Your task to perform on an android device: turn off javascript in the chrome app Image 0: 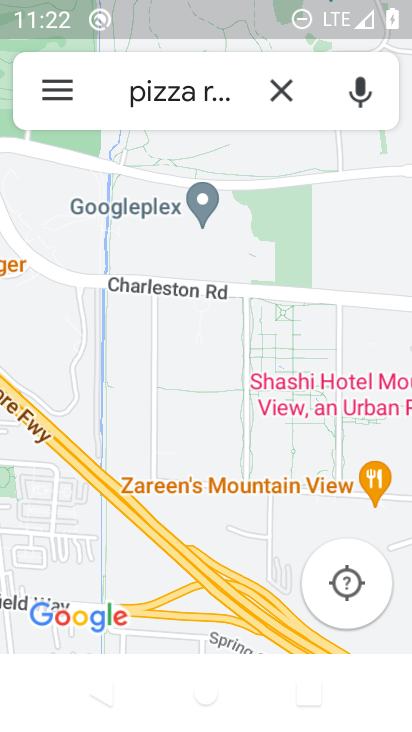
Step 0: drag from (187, 625) to (295, 252)
Your task to perform on an android device: turn off javascript in the chrome app Image 1: 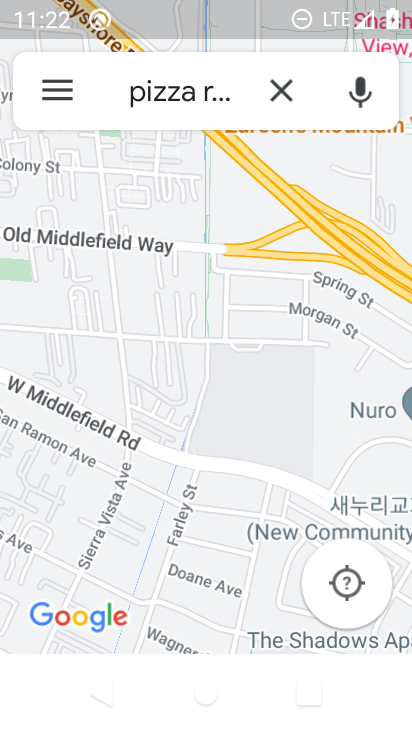
Step 1: drag from (214, 498) to (287, 206)
Your task to perform on an android device: turn off javascript in the chrome app Image 2: 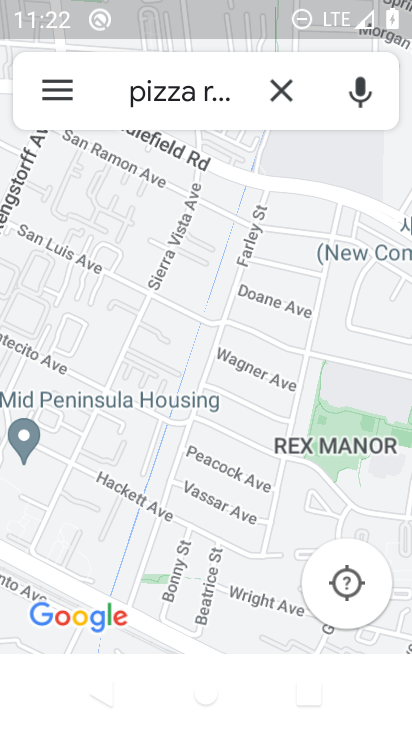
Step 2: press home button
Your task to perform on an android device: turn off javascript in the chrome app Image 3: 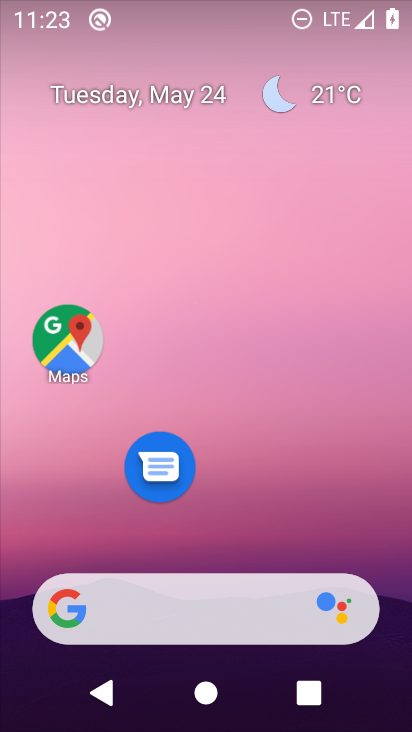
Step 3: drag from (197, 528) to (239, 223)
Your task to perform on an android device: turn off javascript in the chrome app Image 4: 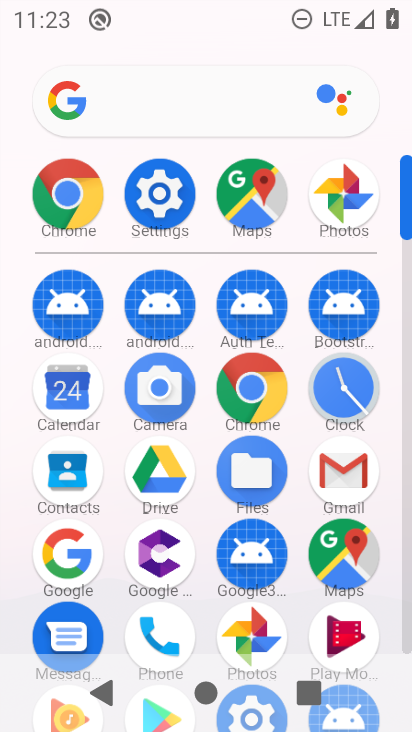
Step 4: click (71, 201)
Your task to perform on an android device: turn off javascript in the chrome app Image 5: 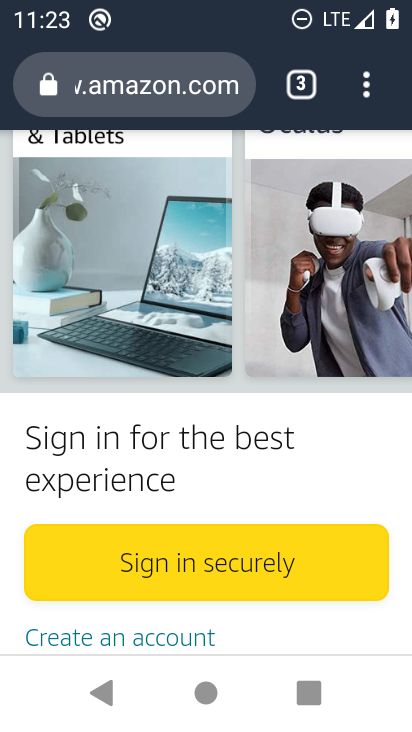
Step 5: drag from (245, 614) to (286, 293)
Your task to perform on an android device: turn off javascript in the chrome app Image 6: 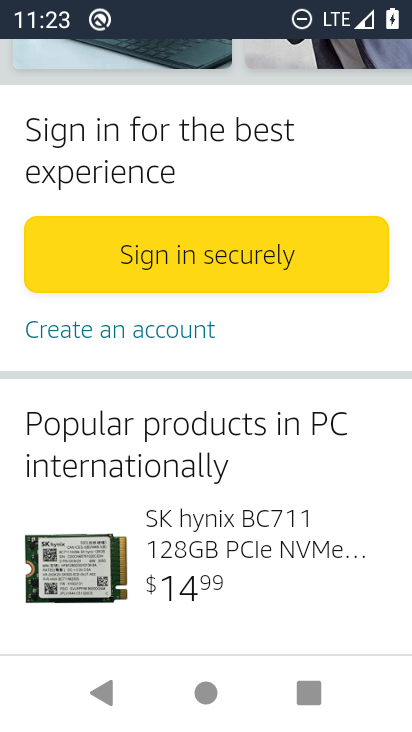
Step 6: drag from (369, 108) to (320, 671)
Your task to perform on an android device: turn off javascript in the chrome app Image 7: 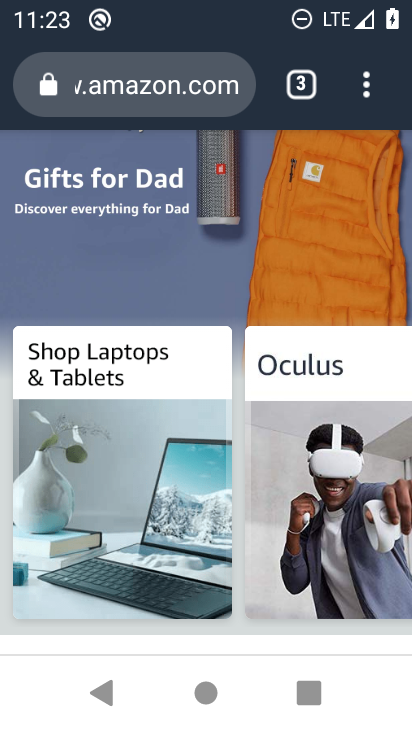
Step 7: click (369, 90)
Your task to perform on an android device: turn off javascript in the chrome app Image 8: 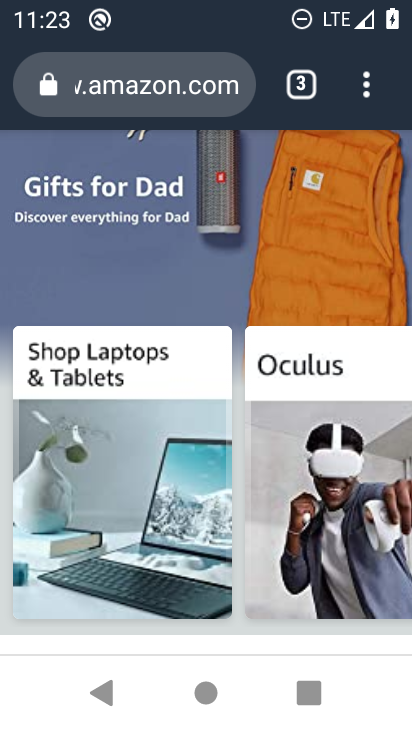
Step 8: click (372, 90)
Your task to perform on an android device: turn off javascript in the chrome app Image 9: 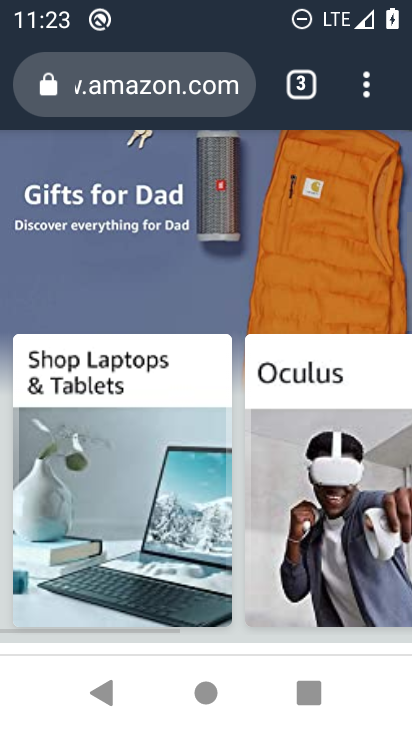
Step 9: click (366, 88)
Your task to perform on an android device: turn off javascript in the chrome app Image 10: 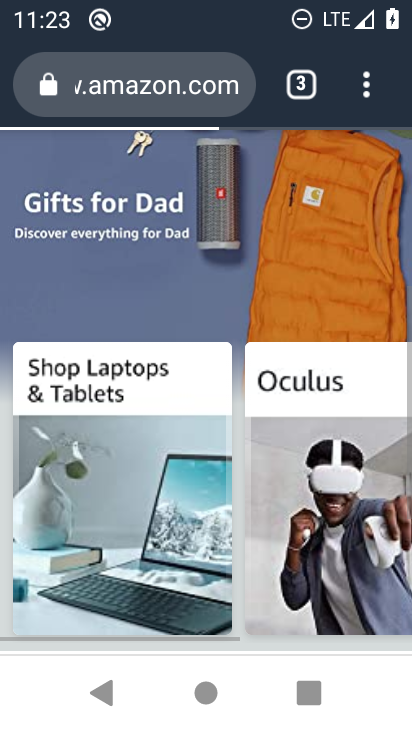
Step 10: click (365, 88)
Your task to perform on an android device: turn off javascript in the chrome app Image 11: 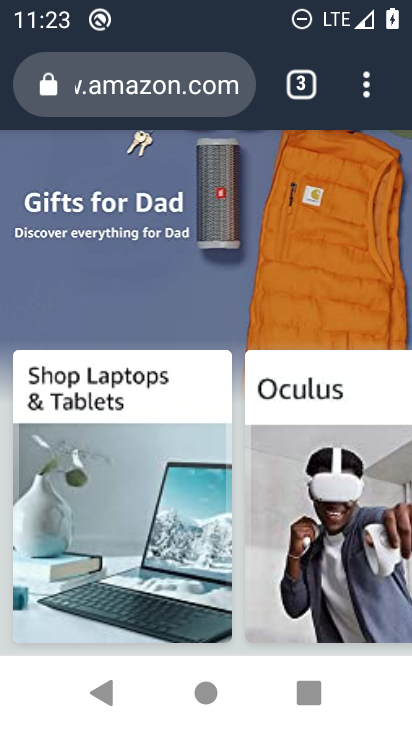
Step 11: click (365, 88)
Your task to perform on an android device: turn off javascript in the chrome app Image 12: 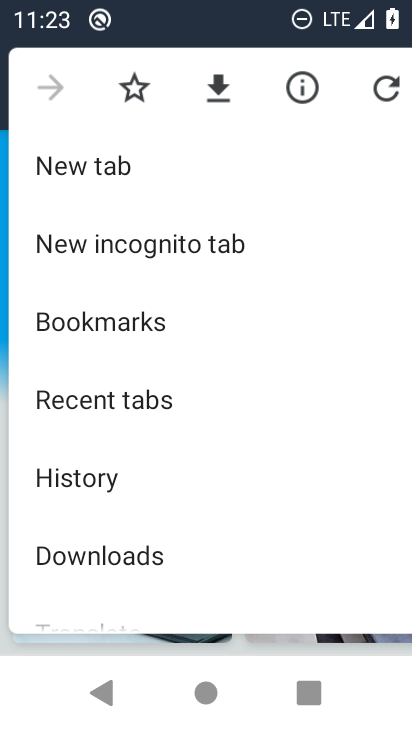
Step 12: drag from (120, 507) to (238, 162)
Your task to perform on an android device: turn off javascript in the chrome app Image 13: 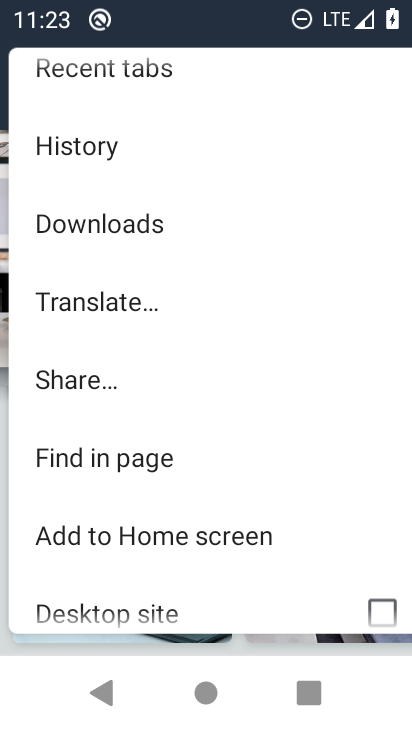
Step 13: drag from (140, 568) to (228, 83)
Your task to perform on an android device: turn off javascript in the chrome app Image 14: 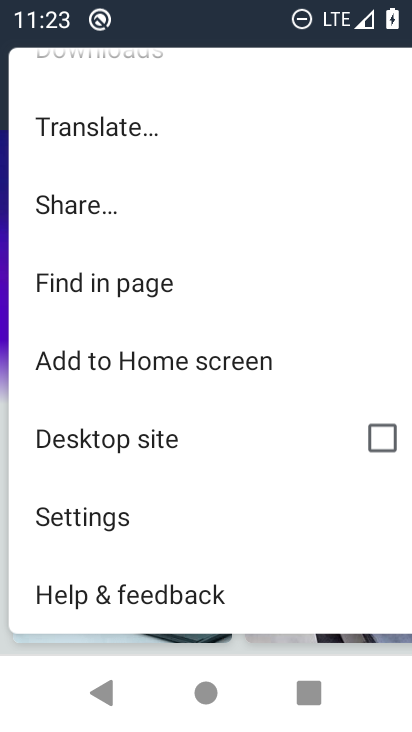
Step 14: click (97, 516)
Your task to perform on an android device: turn off javascript in the chrome app Image 15: 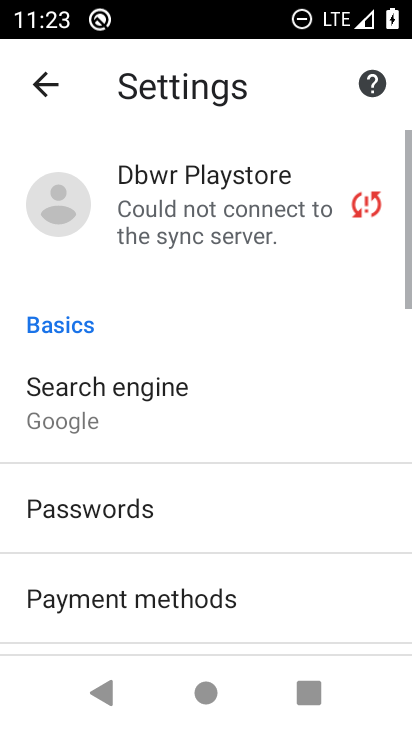
Step 15: drag from (227, 507) to (316, 64)
Your task to perform on an android device: turn off javascript in the chrome app Image 16: 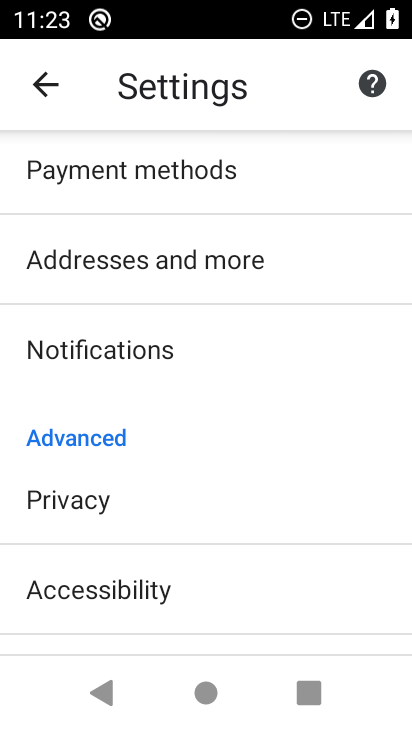
Step 16: drag from (183, 602) to (286, 232)
Your task to perform on an android device: turn off javascript in the chrome app Image 17: 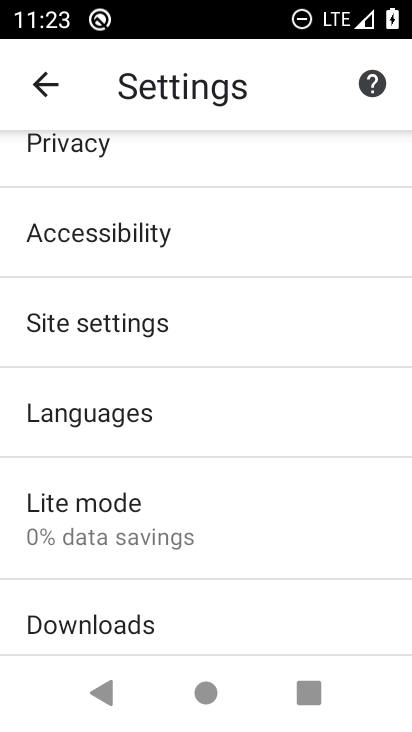
Step 17: click (170, 296)
Your task to perform on an android device: turn off javascript in the chrome app Image 18: 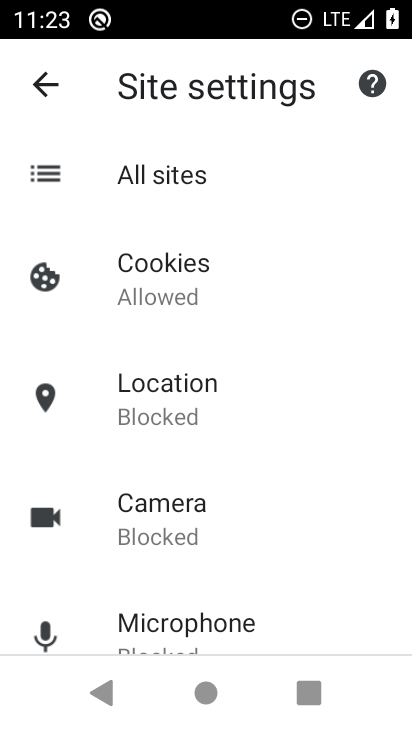
Step 18: drag from (230, 582) to (306, 195)
Your task to perform on an android device: turn off javascript in the chrome app Image 19: 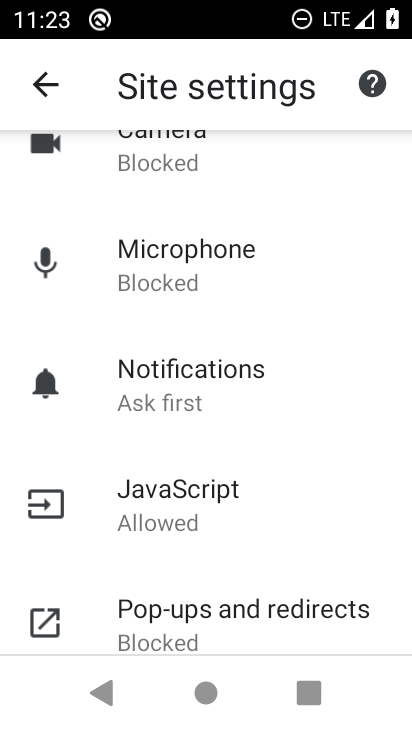
Step 19: click (197, 500)
Your task to perform on an android device: turn off javascript in the chrome app Image 20: 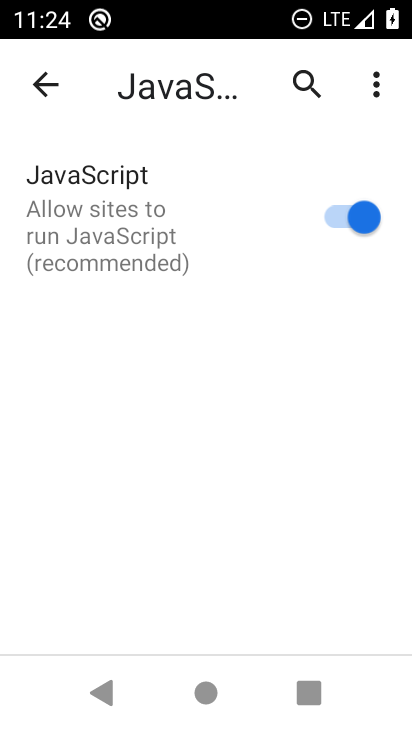
Step 20: click (355, 228)
Your task to perform on an android device: turn off javascript in the chrome app Image 21: 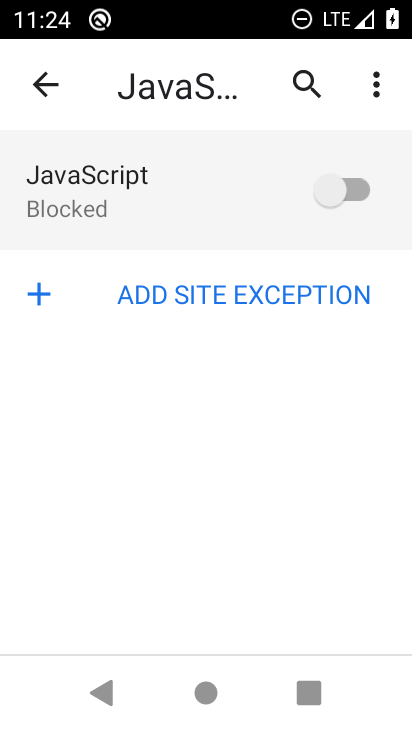
Step 21: task complete